Your task to perform on an android device: Open the calendar and show me this week's events Image 0: 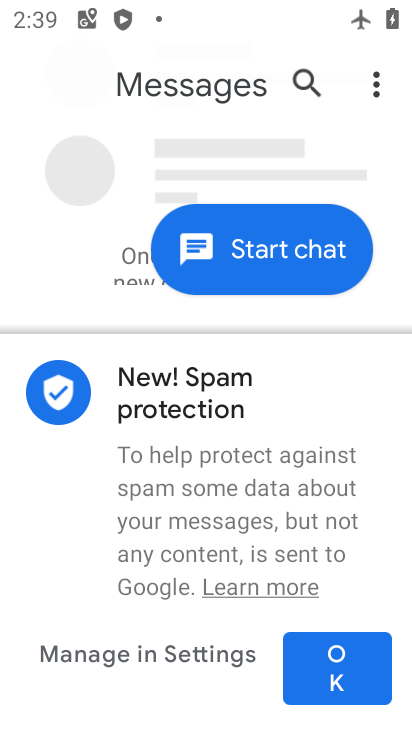
Step 0: press home button
Your task to perform on an android device: Open the calendar and show me this week's events Image 1: 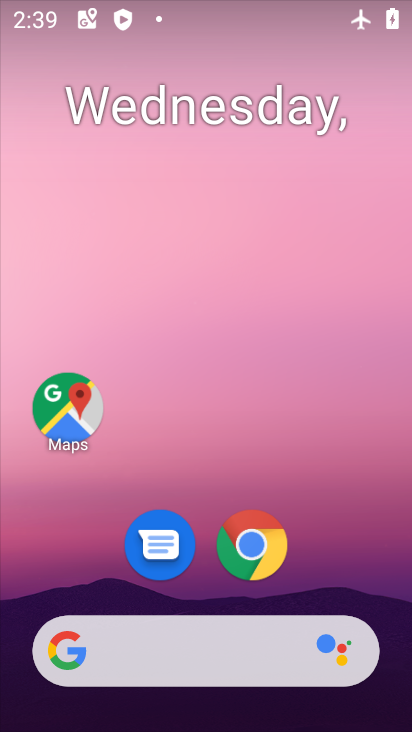
Step 1: drag from (322, 494) to (302, 49)
Your task to perform on an android device: Open the calendar and show me this week's events Image 2: 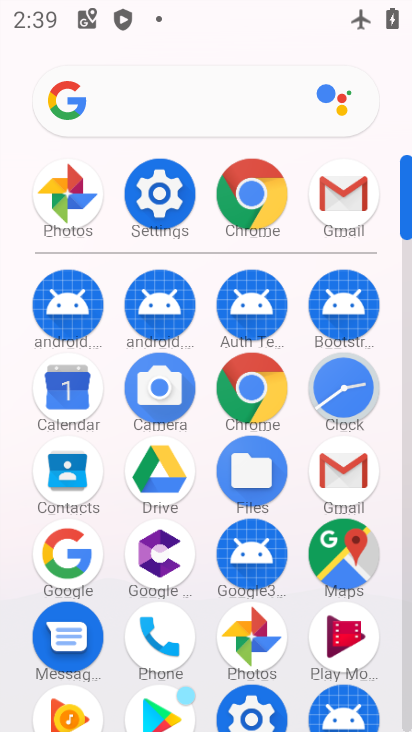
Step 2: click (57, 389)
Your task to perform on an android device: Open the calendar and show me this week's events Image 3: 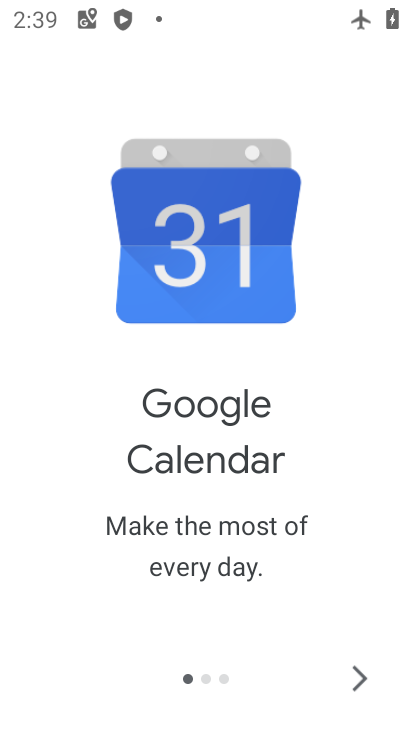
Step 3: click (370, 674)
Your task to perform on an android device: Open the calendar and show me this week's events Image 4: 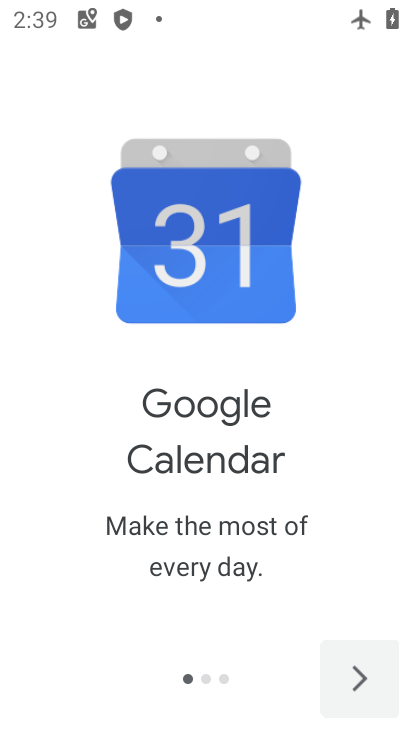
Step 4: click (370, 674)
Your task to perform on an android device: Open the calendar and show me this week's events Image 5: 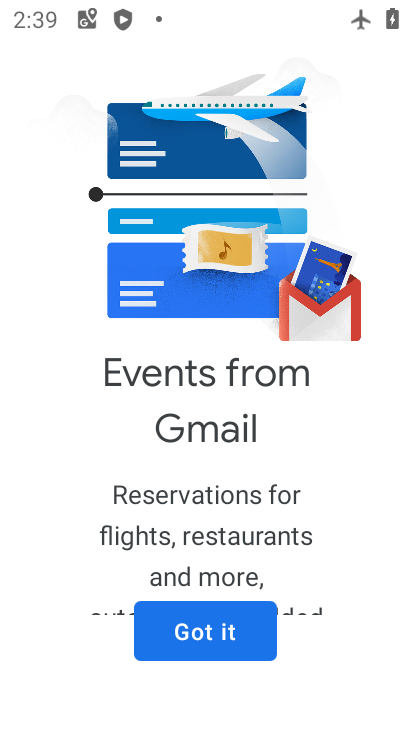
Step 5: click (370, 674)
Your task to perform on an android device: Open the calendar and show me this week's events Image 6: 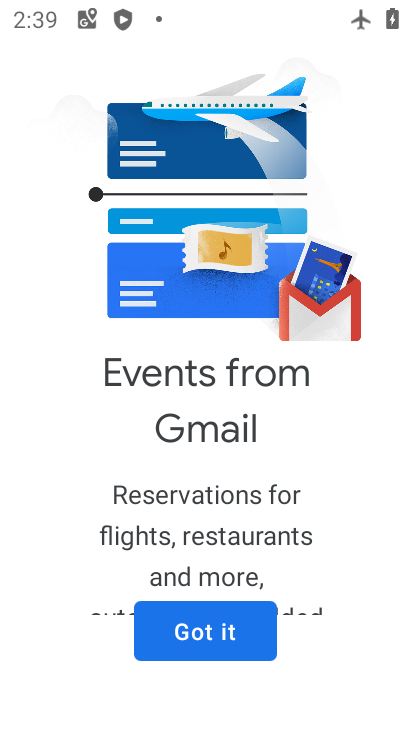
Step 6: click (201, 614)
Your task to perform on an android device: Open the calendar and show me this week's events Image 7: 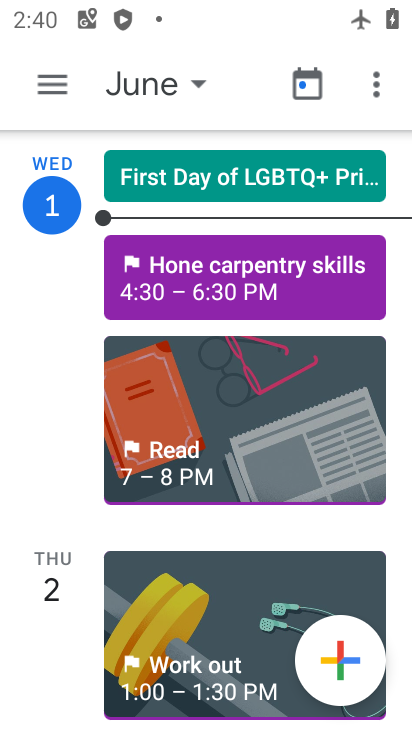
Step 7: click (156, 76)
Your task to perform on an android device: Open the calendar and show me this week's events Image 8: 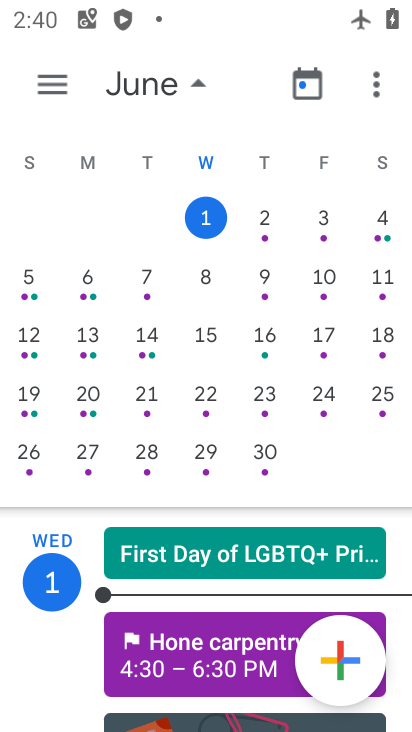
Step 8: click (60, 92)
Your task to perform on an android device: Open the calendar and show me this week's events Image 9: 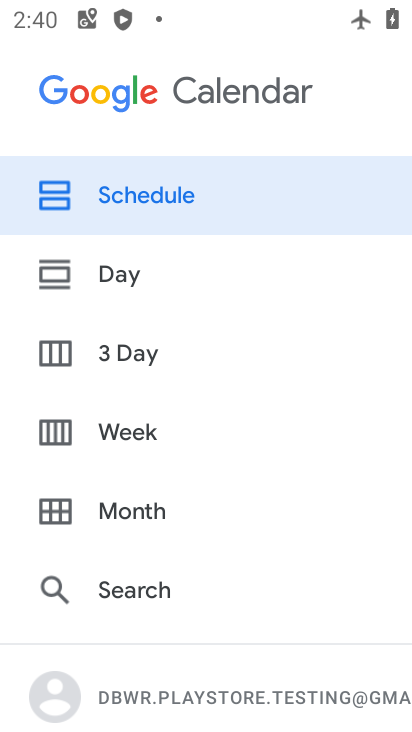
Step 9: click (120, 431)
Your task to perform on an android device: Open the calendar and show me this week's events Image 10: 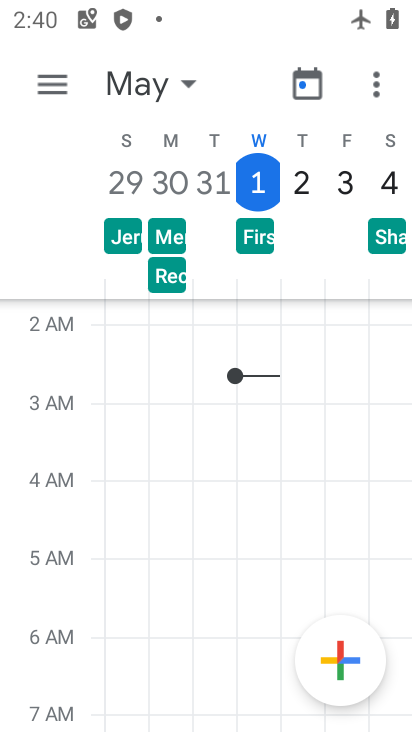
Step 10: task complete